Your task to perform on an android device: Open the phone app and click the voicemail tab. Image 0: 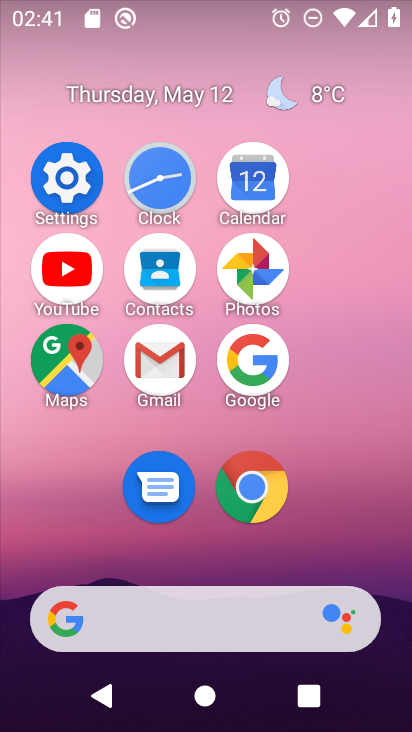
Step 0: drag from (327, 559) to (309, 138)
Your task to perform on an android device: Open the phone app and click the voicemail tab. Image 1: 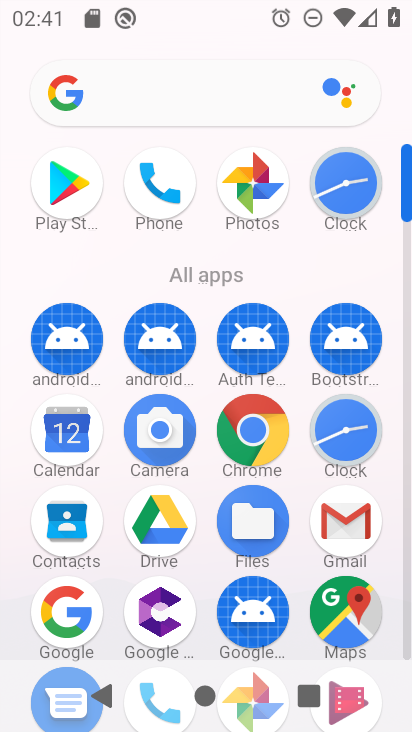
Step 1: click (164, 209)
Your task to perform on an android device: Open the phone app and click the voicemail tab. Image 2: 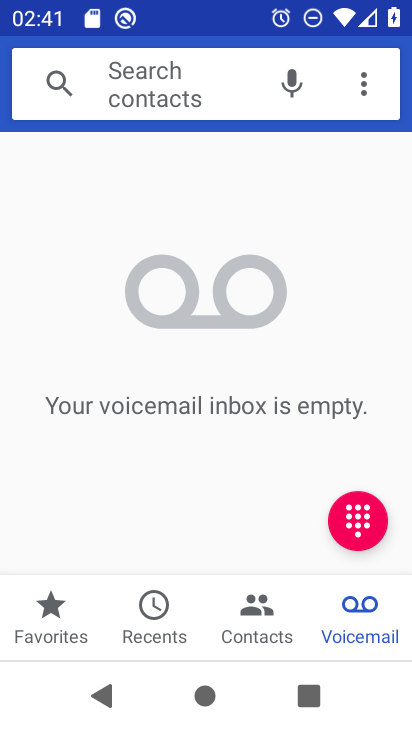
Step 2: click (371, 598)
Your task to perform on an android device: Open the phone app and click the voicemail tab. Image 3: 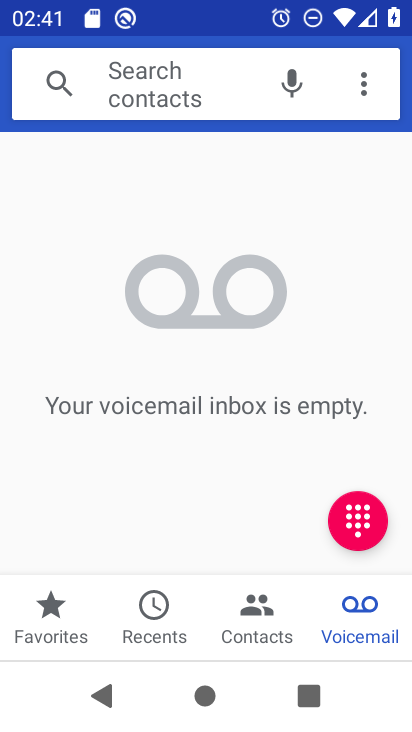
Step 3: task complete